Your task to perform on an android device: Open ESPN.com Image 0: 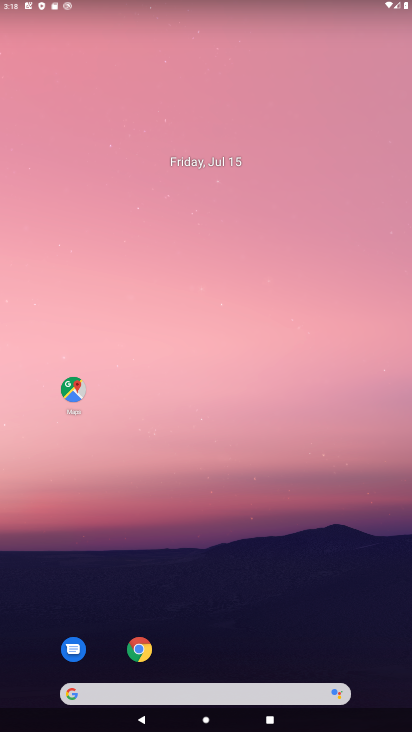
Step 0: drag from (374, 627) to (224, 102)
Your task to perform on an android device: Open ESPN.com Image 1: 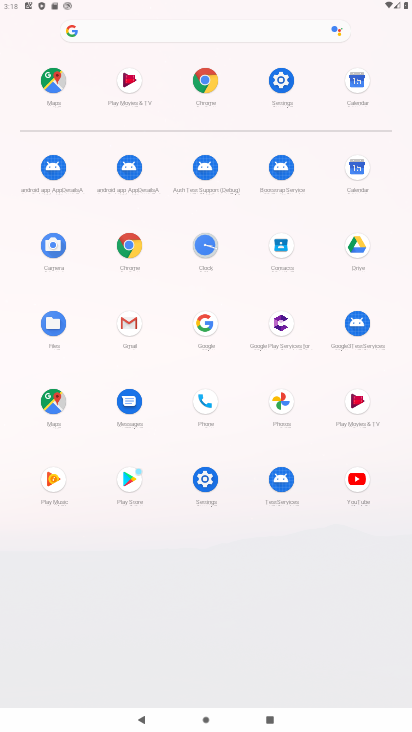
Step 1: click (200, 80)
Your task to perform on an android device: Open ESPN.com Image 2: 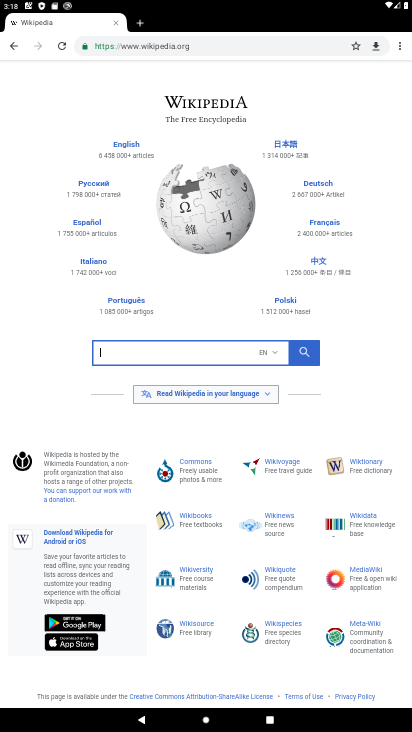
Step 2: click (195, 49)
Your task to perform on an android device: Open ESPN.com Image 3: 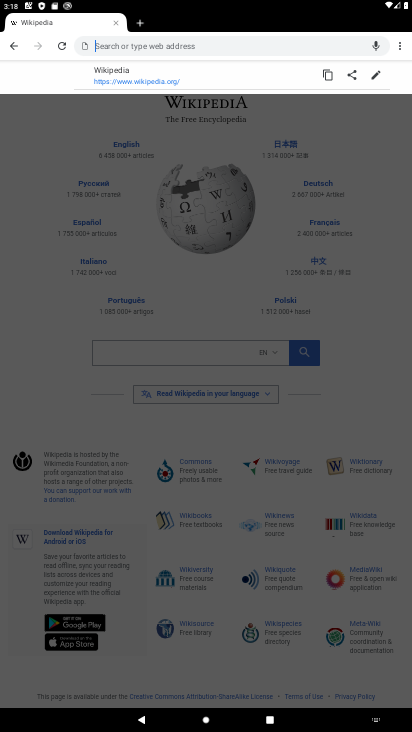
Step 3: type "espn.com"
Your task to perform on an android device: Open ESPN.com Image 4: 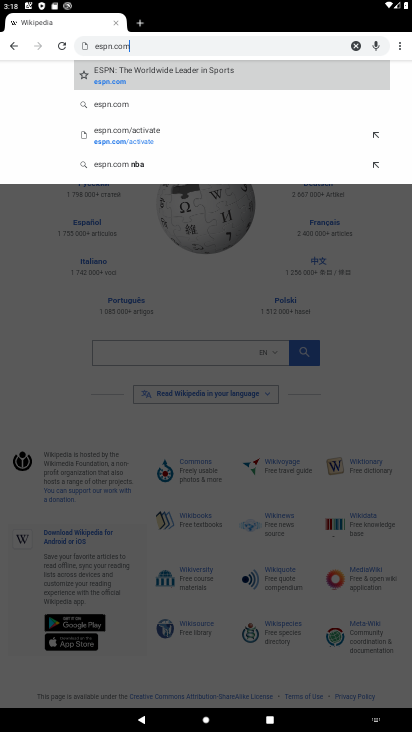
Step 4: click (127, 78)
Your task to perform on an android device: Open ESPN.com Image 5: 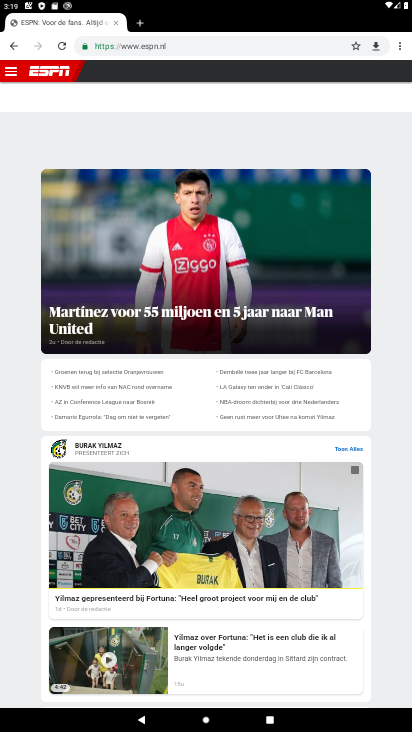
Step 5: task complete